Your task to perform on an android device: Go to Wikipedia Image 0: 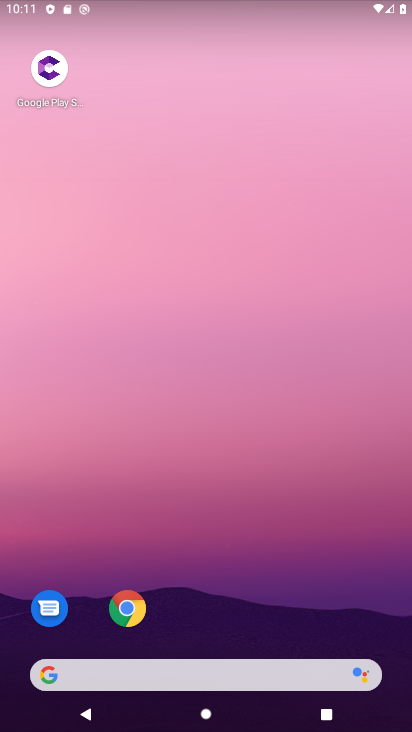
Step 0: click (126, 605)
Your task to perform on an android device: Go to Wikipedia Image 1: 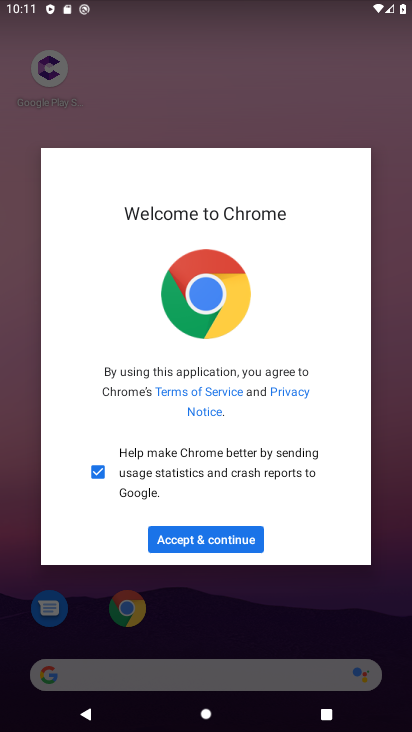
Step 1: click (194, 533)
Your task to perform on an android device: Go to Wikipedia Image 2: 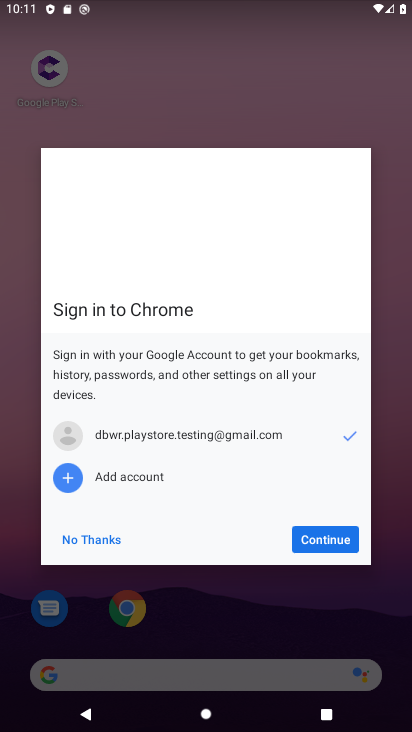
Step 2: click (353, 542)
Your task to perform on an android device: Go to Wikipedia Image 3: 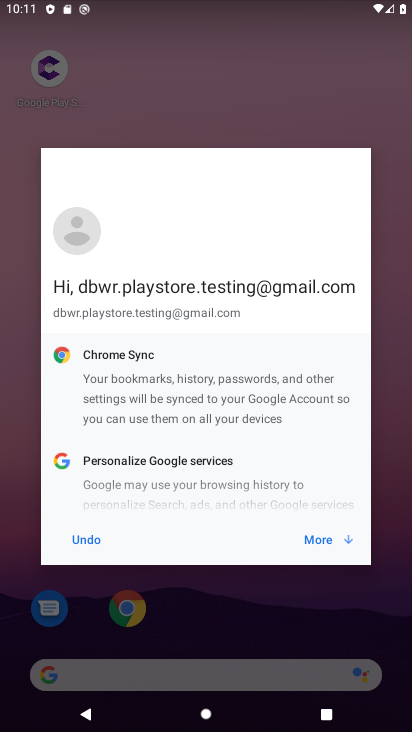
Step 3: click (317, 534)
Your task to perform on an android device: Go to Wikipedia Image 4: 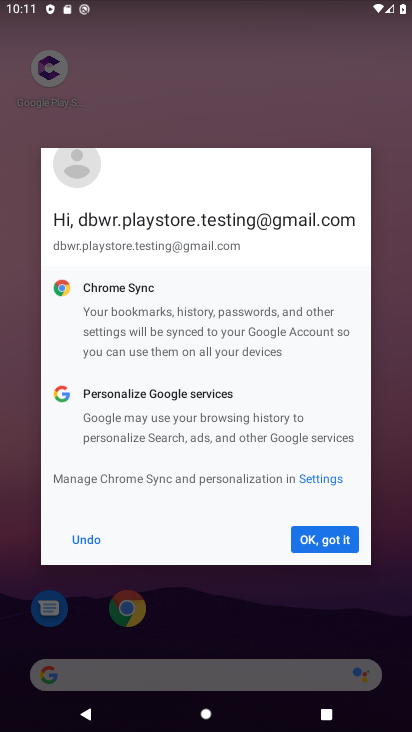
Step 4: click (317, 534)
Your task to perform on an android device: Go to Wikipedia Image 5: 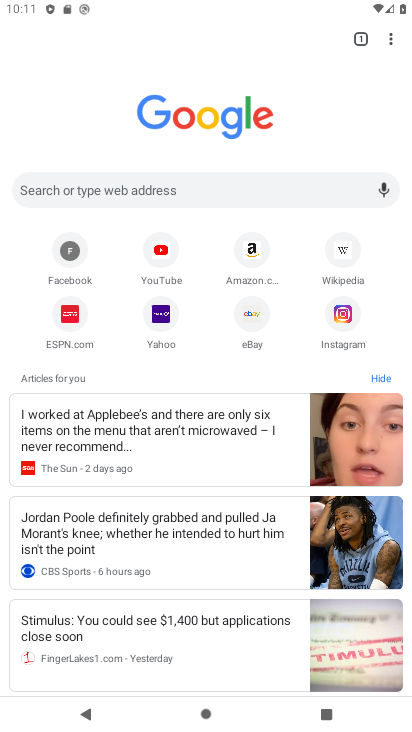
Step 5: click (223, 193)
Your task to perform on an android device: Go to Wikipedia Image 6: 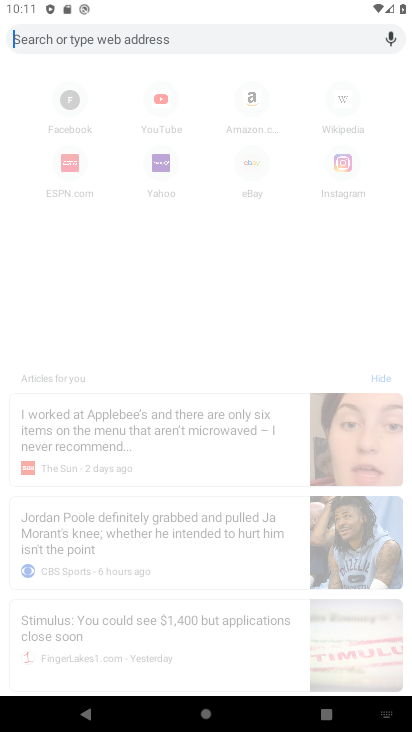
Step 6: type "Wikipedia"
Your task to perform on an android device: Go to Wikipedia Image 7: 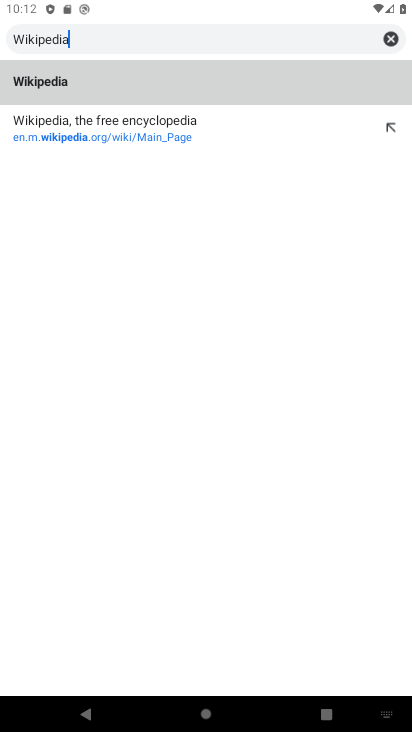
Step 7: click (97, 80)
Your task to perform on an android device: Go to Wikipedia Image 8: 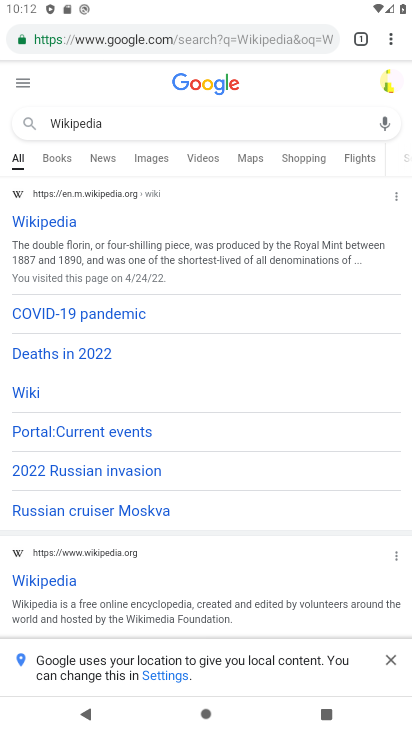
Step 8: task complete